Your task to perform on an android device: turn notification dots on Image 0: 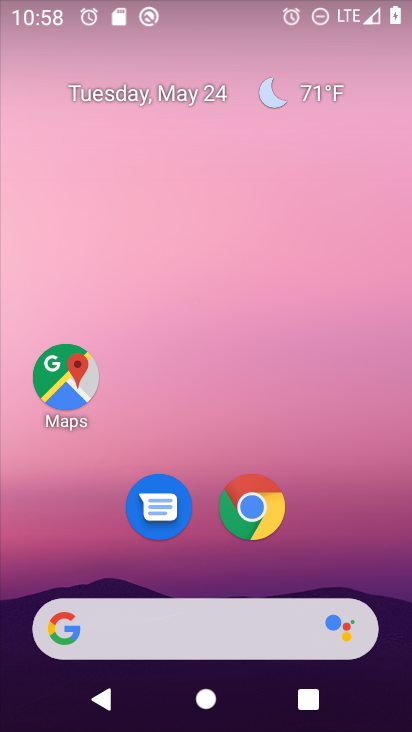
Step 0: drag from (214, 724) to (228, 47)
Your task to perform on an android device: turn notification dots on Image 1: 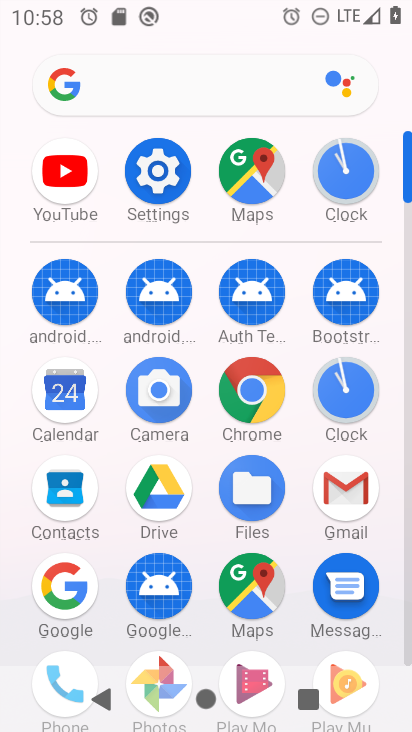
Step 1: click (133, 178)
Your task to perform on an android device: turn notification dots on Image 2: 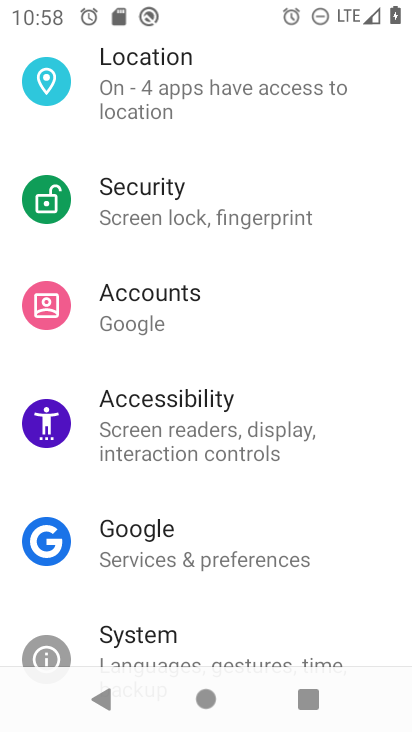
Step 2: drag from (147, 615) to (151, 250)
Your task to perform on an android device: turn notification dots on Image 3: 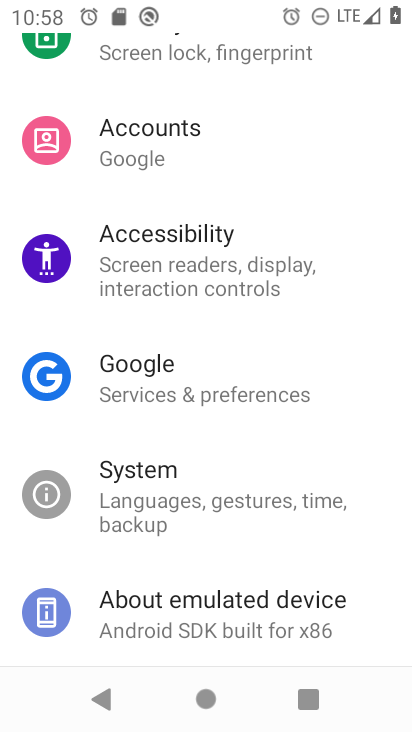
Step 3: drag from (257, 169) to (264, 534)
Your task to perform on an android device: turn notification dots on Image 4: 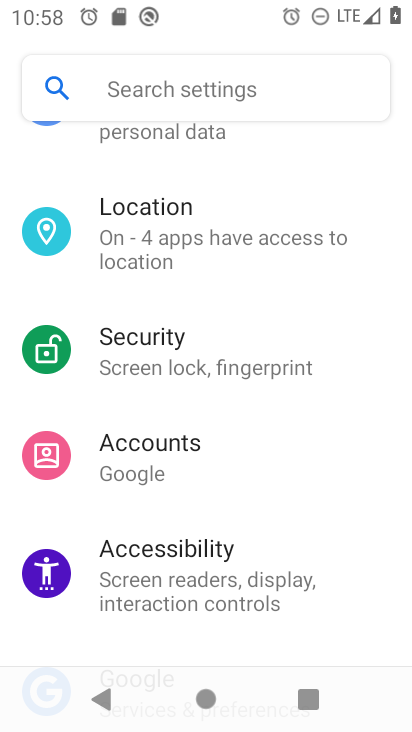
Step 4: drag from (227, 201) to (227, 531)
Your task to perform on an android device: turn notification dots on Image 5: 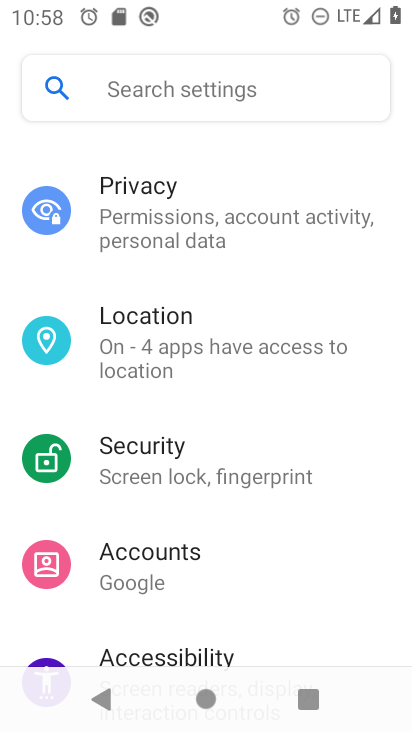
Step 5: drag from (202, 224) to (190, 590)
Your task to perform on an android device: turn notification dots on Image 6: 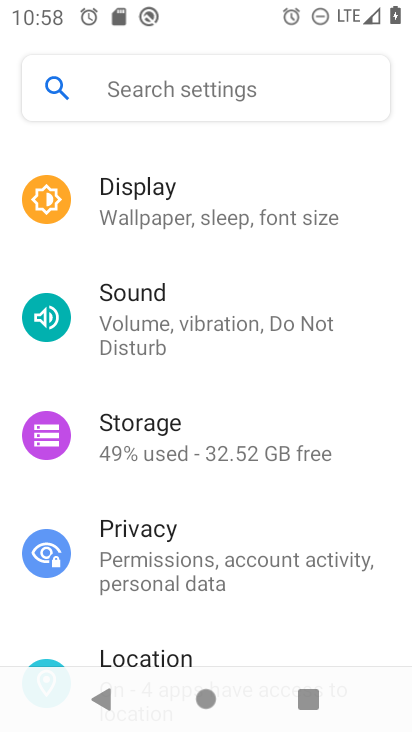
Step 6: drag from (191, 186) to (194, 612)
Your task to perform on an android device: turn notification dots on Image 7: 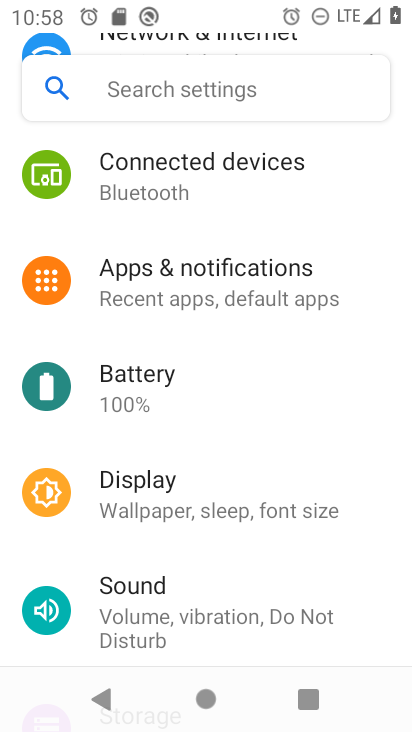
Step 7: click (178, 283)
Your task to perform on an android device: turn notification dots on Image 8: 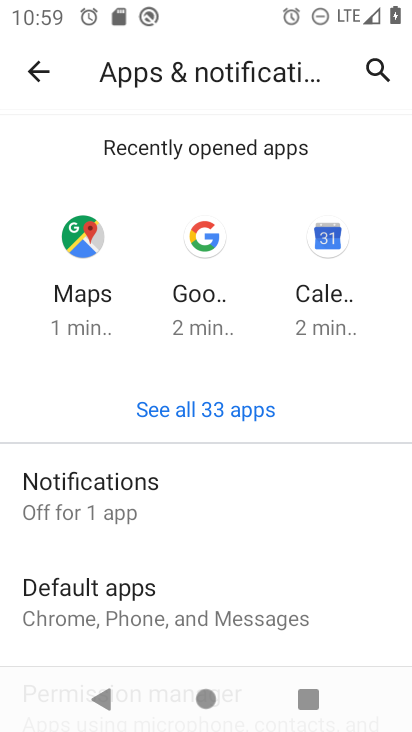
Step 8: click (109, 495)
Your task to perform on an android device: turn notification dots on Image 9: 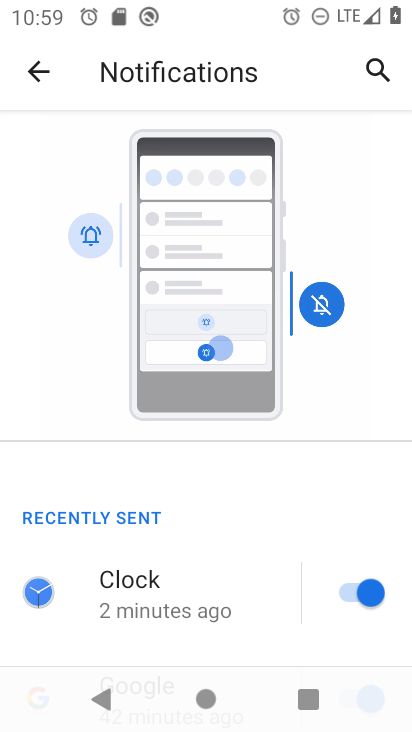
Step 9: drag from (186, 638) to (188, 356)
Your task to perform on an android device: turn notification dots on Image 10: 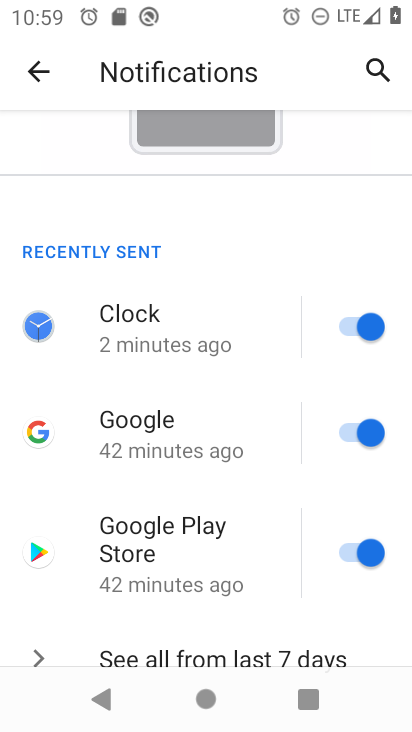
Step 10: drag from (205, 622) to (213, 366)
Your task to perform on an android device: turn notification dots on Image 11: 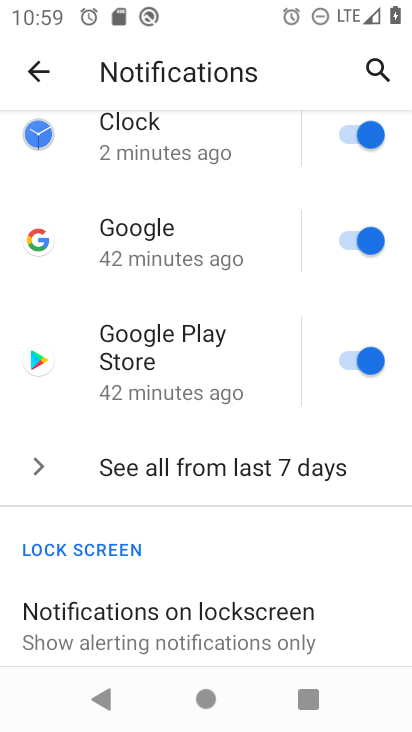
Step 11: drag from (234, 621) to (243, 388)
Your task to perform on an android device: turn notification dots on Image 12: 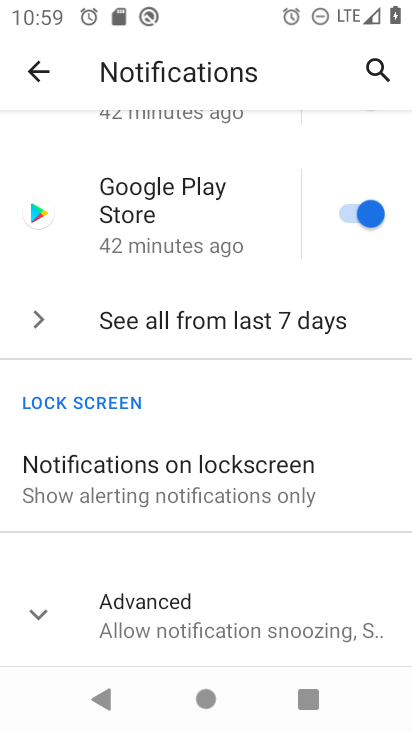
Step 12: click (173, 613)
Your task to perform on an android device: turn notification dots on Image 13: 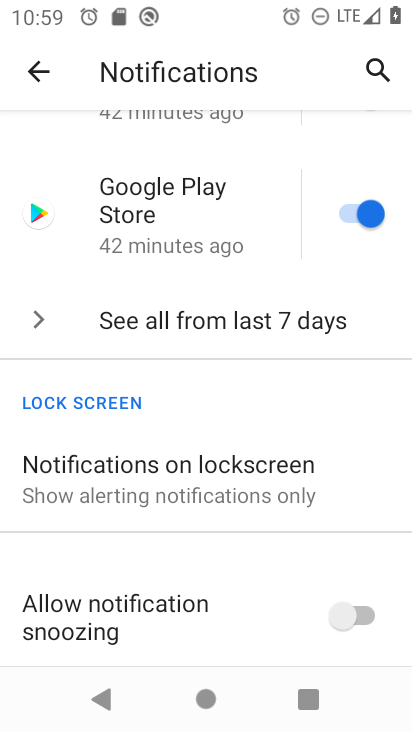
Step 13: task complete